Your task to perform on an android device: Go to Reddit.com Image 0: 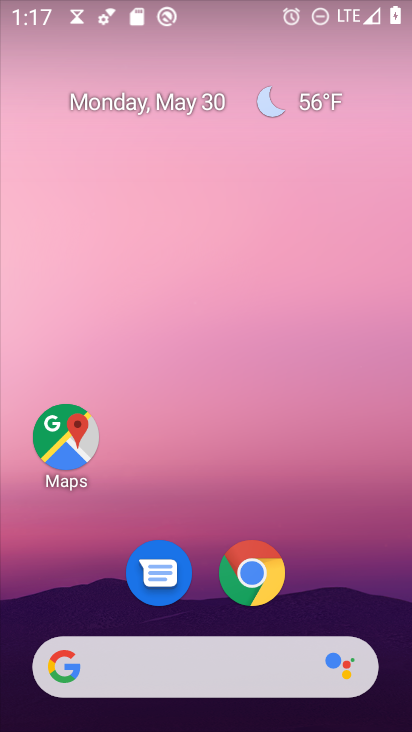
Step 0: drag from (334, 651) to (357, 57)
Your task to perform on an android device: Go to Reddit.com Image 1: 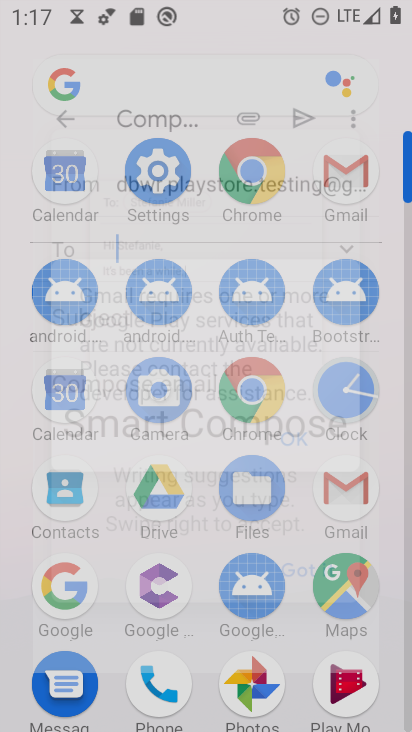
Step 1: click (245, 387)
Your task to perform on an android device: Go to Reddit.com Image 2: 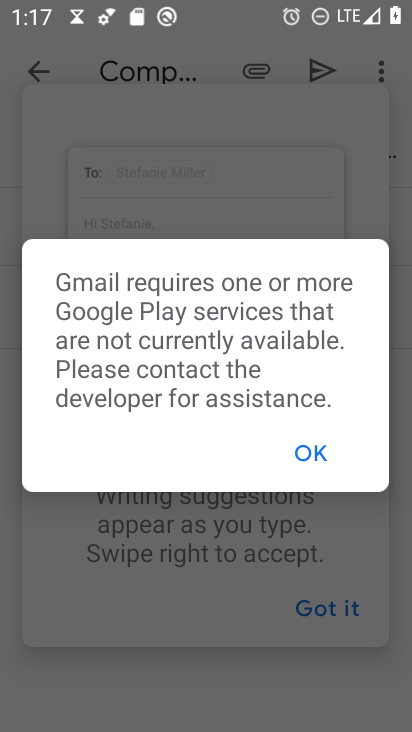
Step 2: click (319, 454)
Your task to perform on an android device: Go to Reddit.com Image 3: 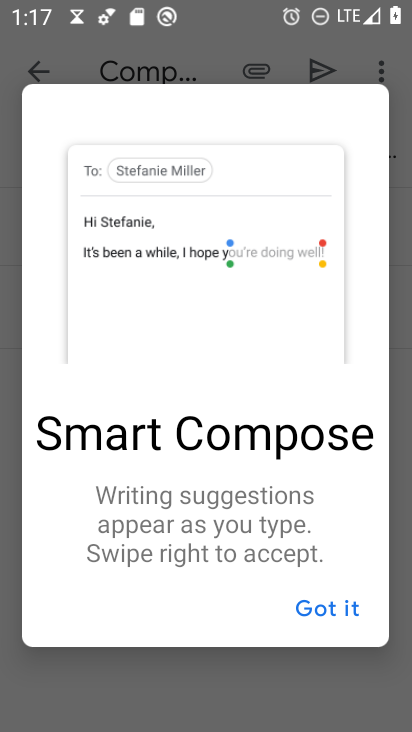
Step 3: press back button
Your task to perform on an android device: Go to Reddit.com Image 4: 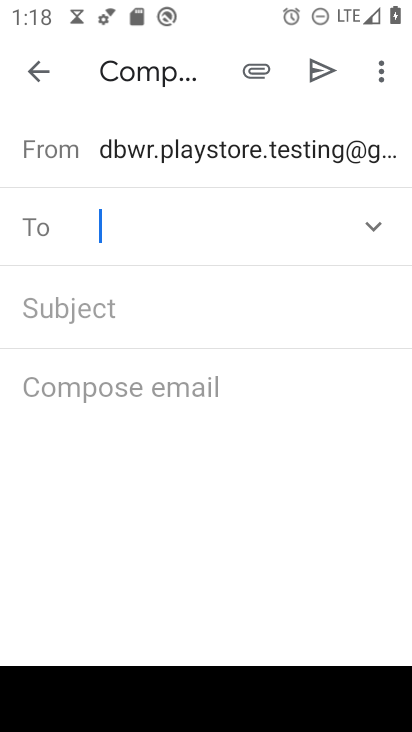
Step 4: press home button
Your task to perform on an android device: Go to Reddit.com Image 5: 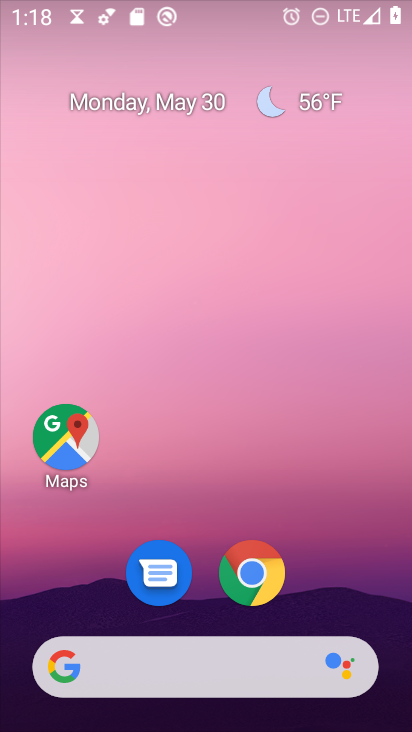
Step 5: drag from (304, 698) to (283, 20)
Your task to perform on an android device: Go to Reddit.com Image 6: 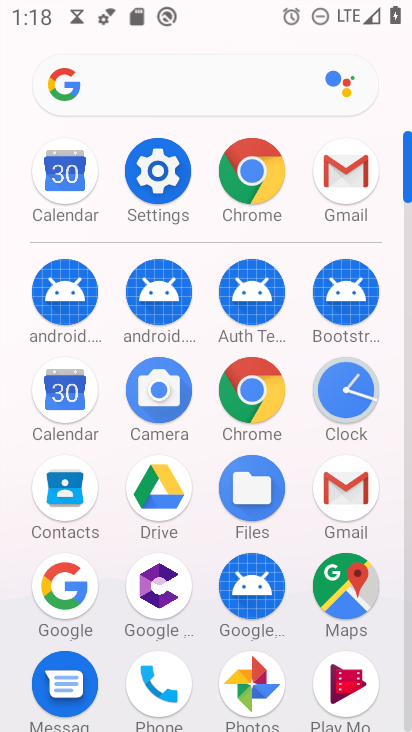
Step 6: click (253, 386)
Your task to perform on an android device: Go to Reddit.com Image 7: 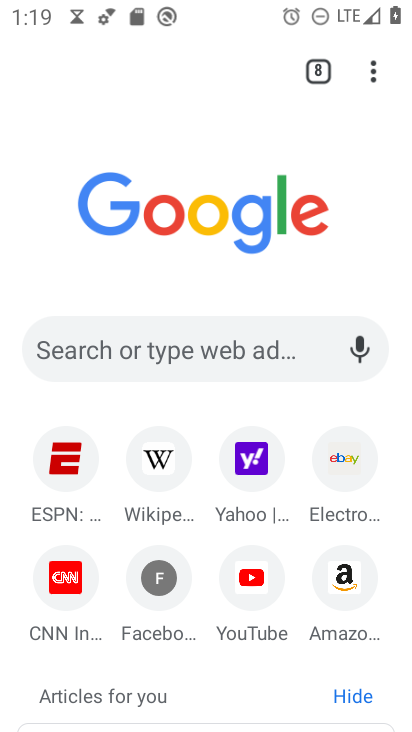
Step 7: click (240, 346)
Your task to perform on an android device: Go to Reddit.com Image 8: 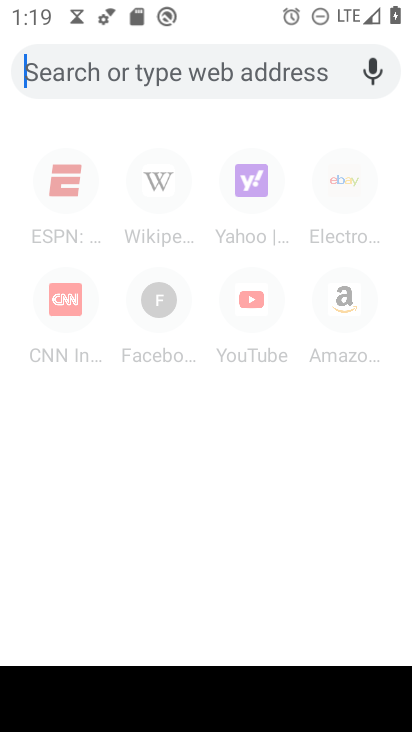
Step 8: type "reddit.com"
Your task to perform on an android device: Go to Reddit.com Image 9: 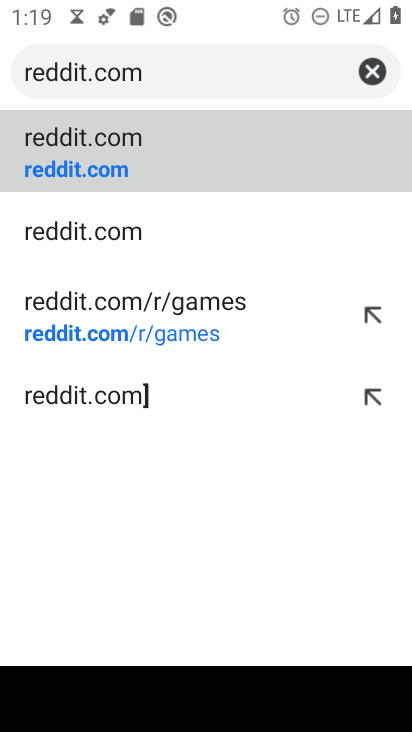
Step 9: click (62, 172)
Your task to perform on an android device: Go to Reddit.com Image 10: 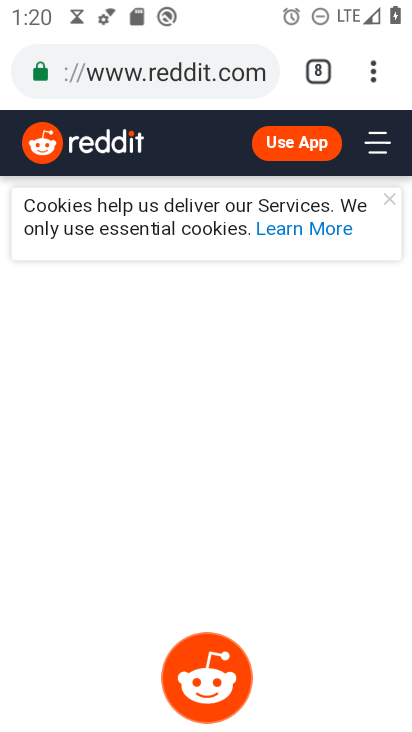
Step 10: task complete